Your task to perform on an android device: Open the Play Movies app and select the watchlist tab. Image 0: 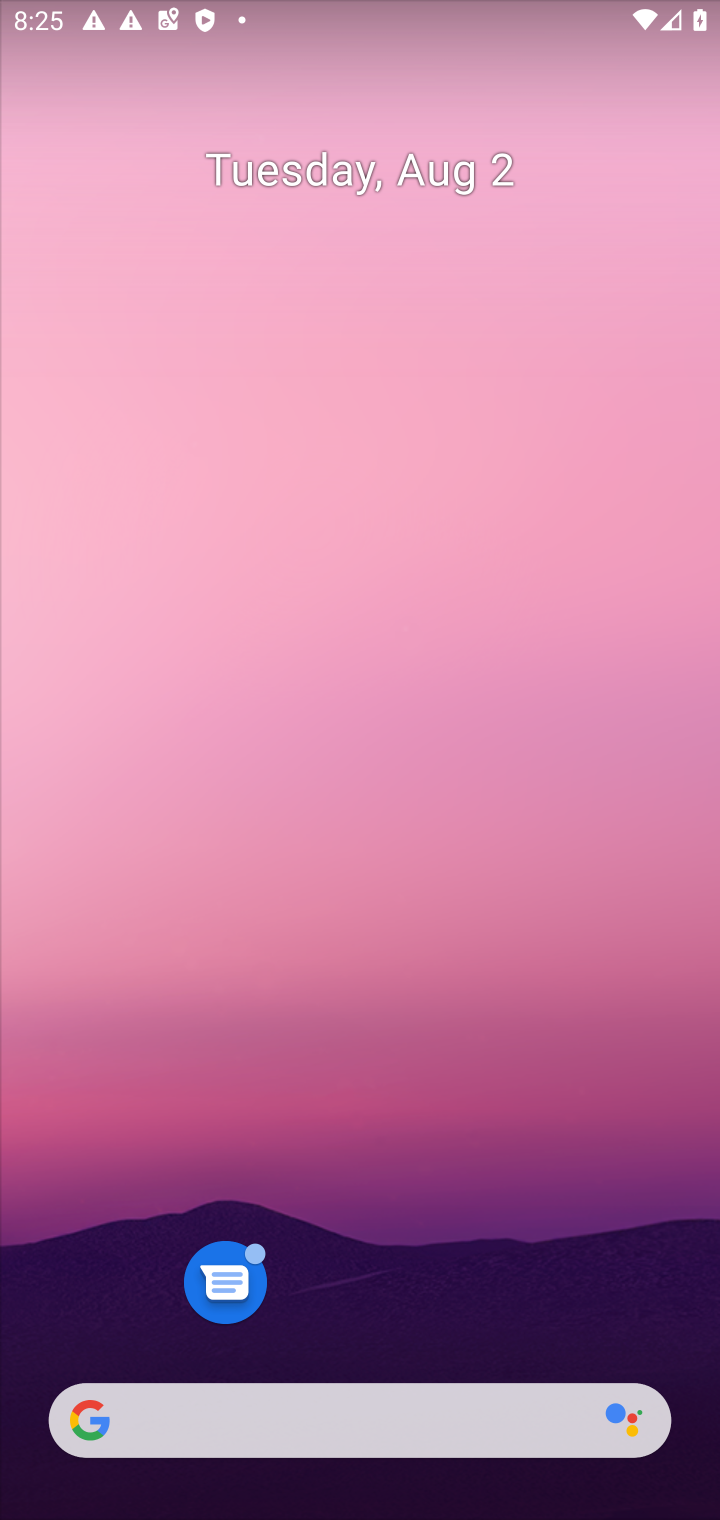
Step 0: drag from (479, 1354) to (365, 2)
Your task to perform on an android device: Open the Play Movies app and select the watchlist tab. Image 1: 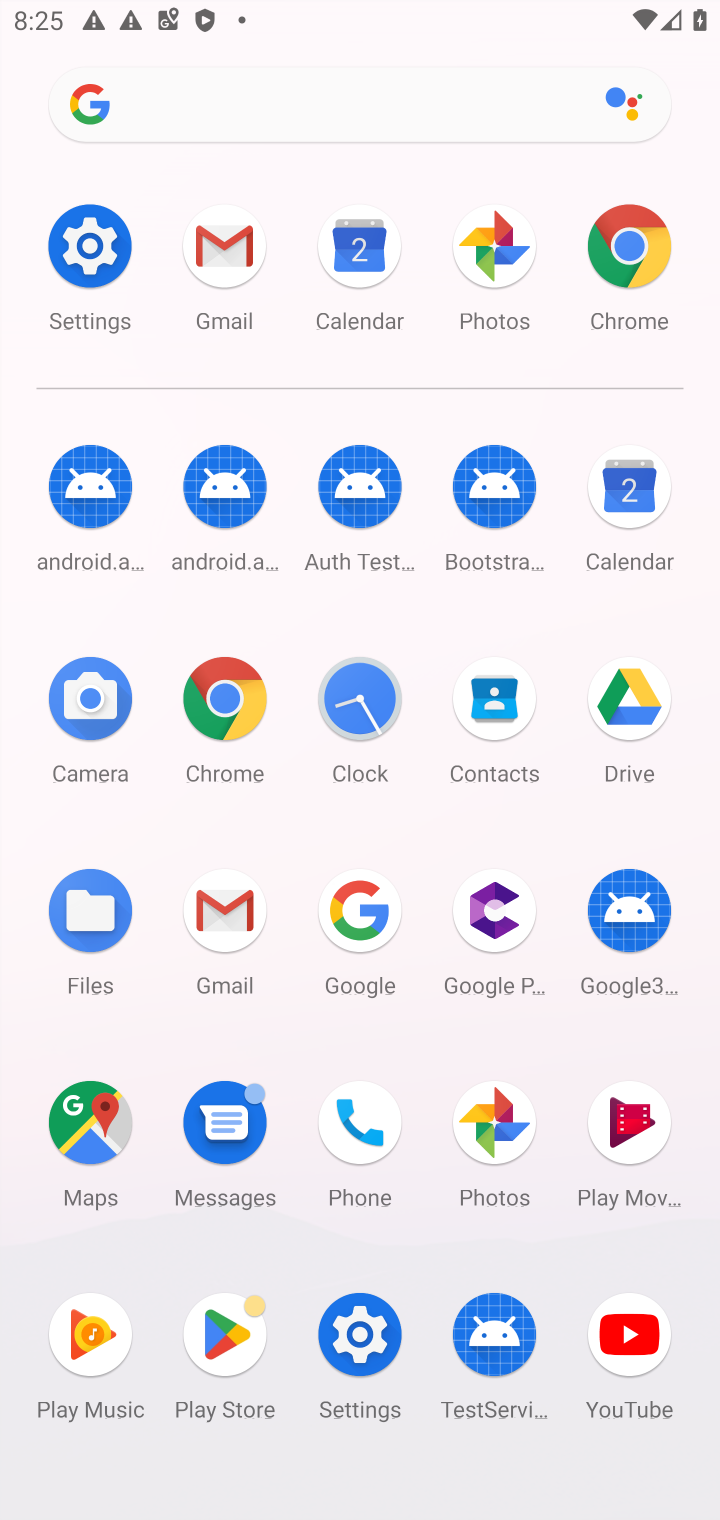
Step 1: click (634, 1136)
Your task to perform on an android device: Open the Play Movies app and select the watchlist tab. Image 2: 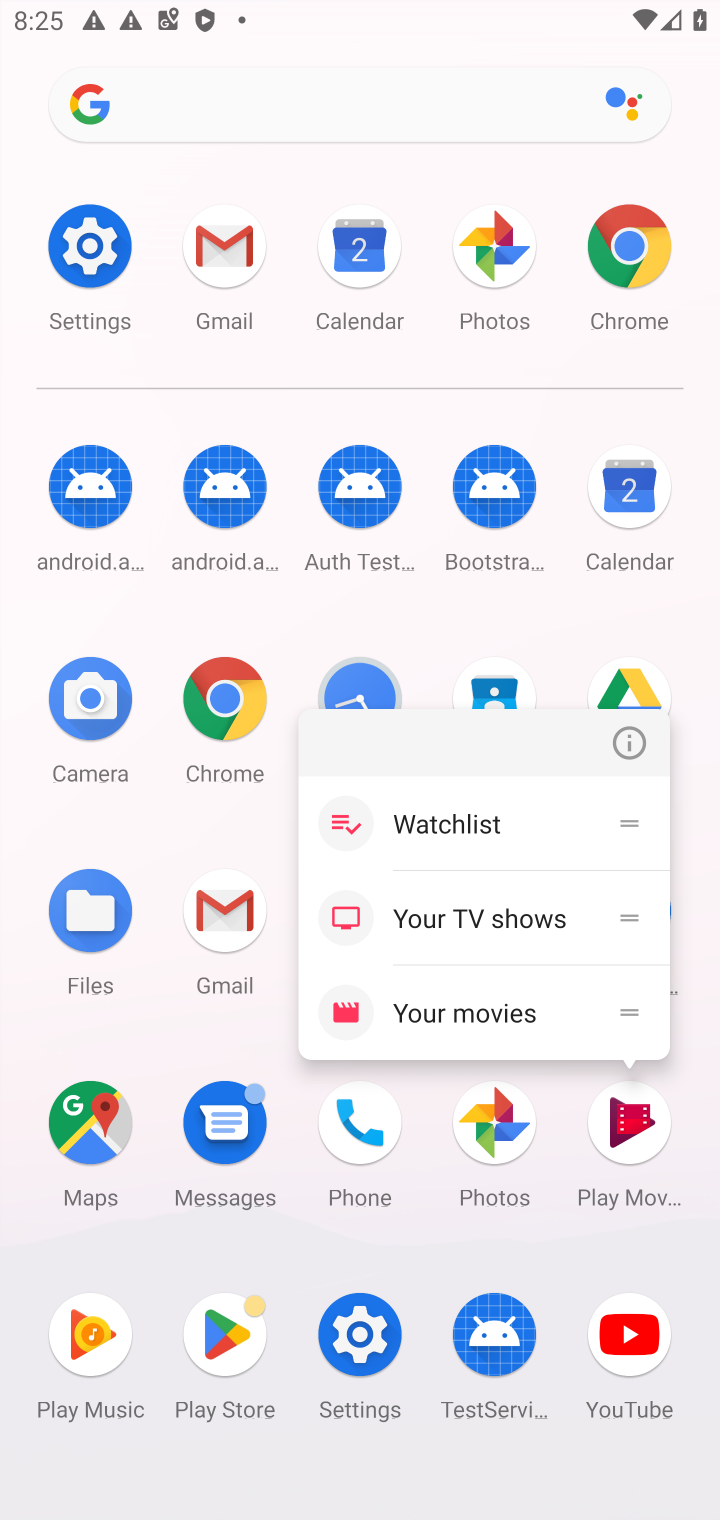
Step 2: click (615, 1151)
Your task to perform on an android device: Open the Play Movies app and select the watchlist tab. Image 3: 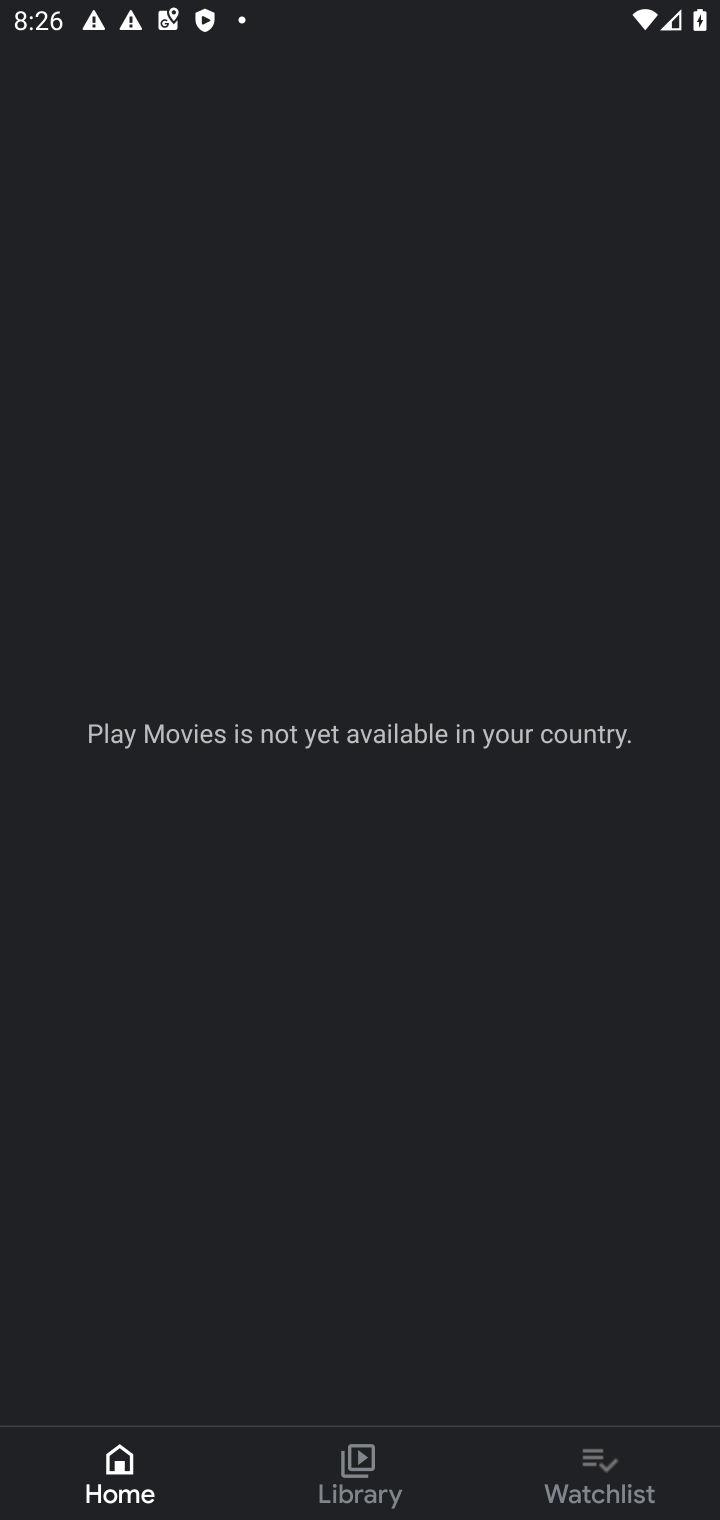
Step 3: click (597, 1471)
Your task to perform on an android device: Open the Play Movies app and select the watchlist tab. Image 4: 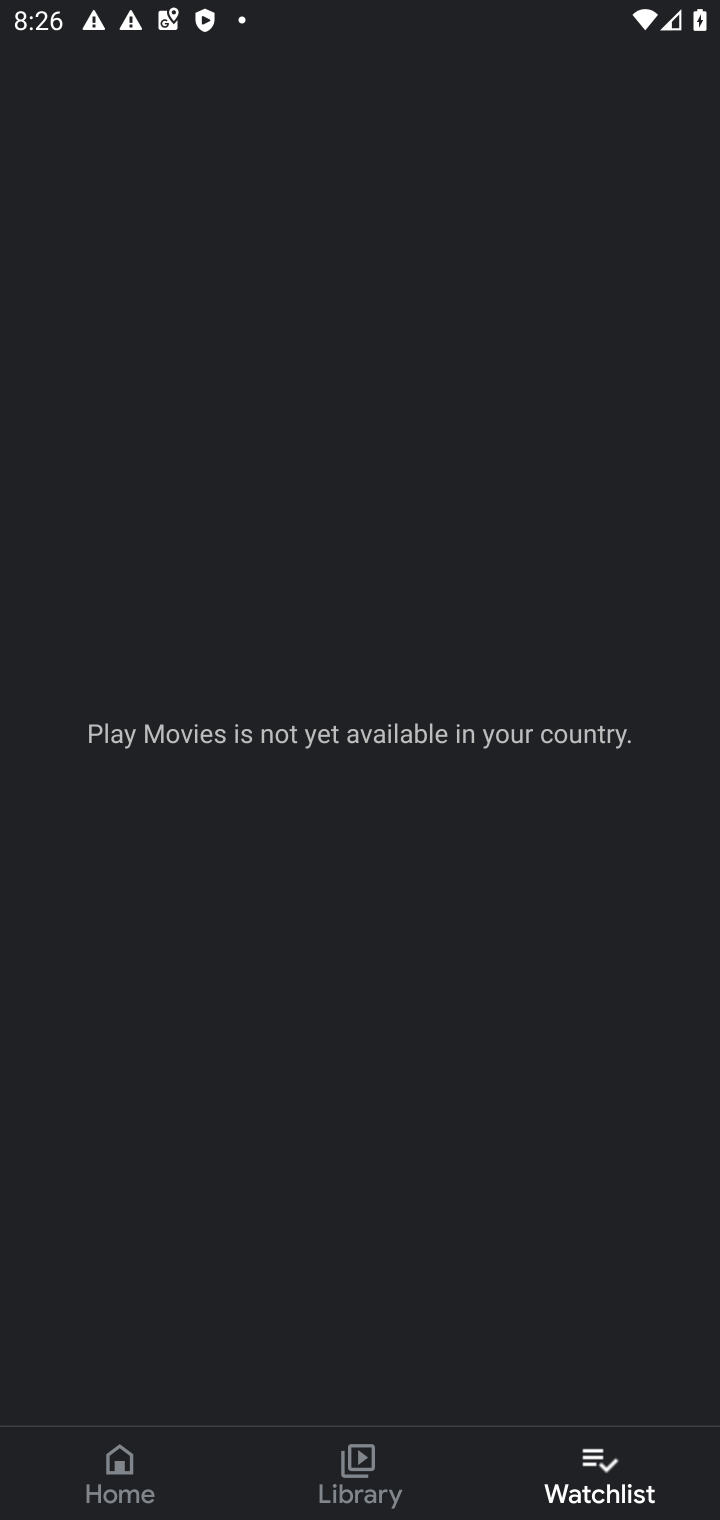
Step 4: task complete